Your task to perform on an android device: Open Chrome and go to the settings page Image 0: 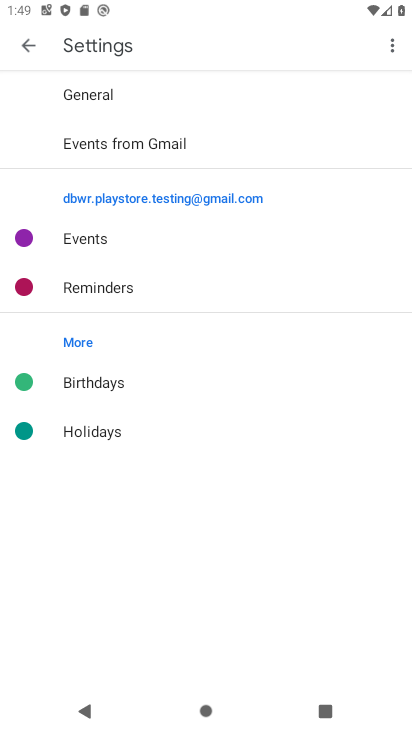
Step 0: press home button
Your task to perform on an android device: Open Chrome and go to the settings page Image 1: 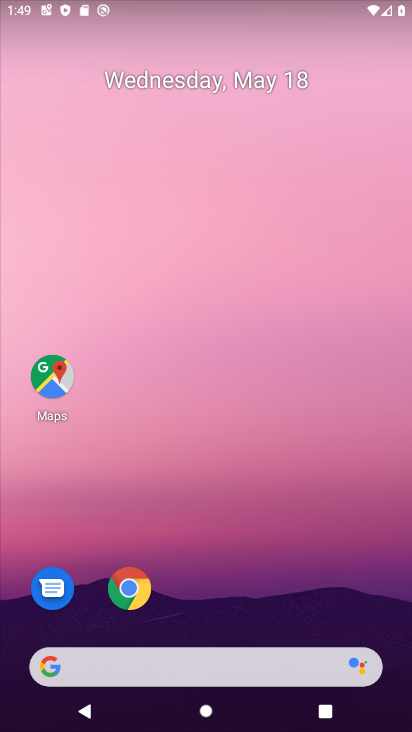
Step 1: drag from (332, 568) to (337, 109)
Your task to perform on an android device: Open Chrome and go to the settings page Image 2: 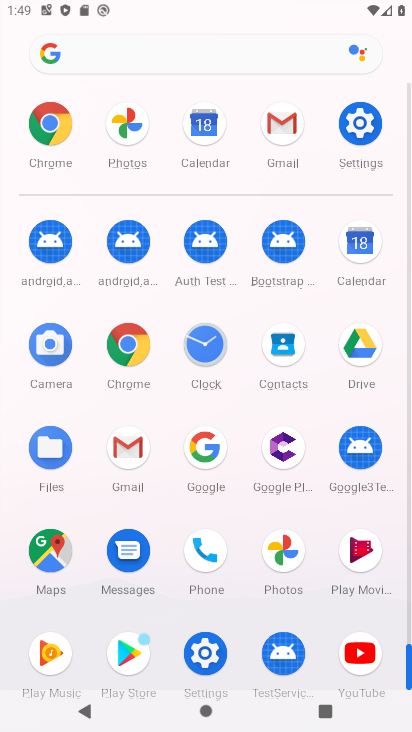
Step 2: click (132, 333)
Your task to perform on an android device: Open Chrome and go to the settings page Image 3: 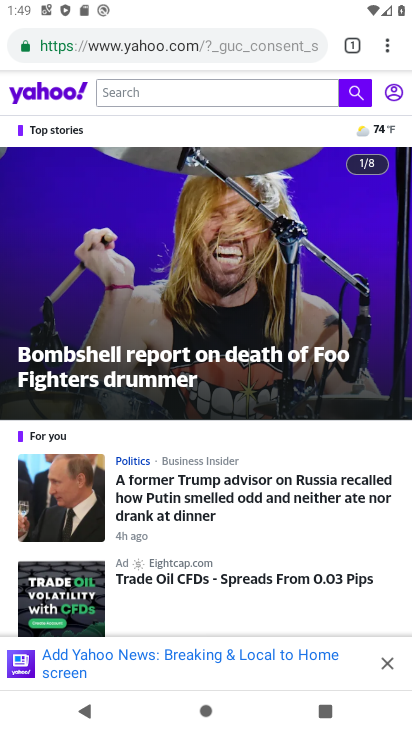
Step 3: click (388, 46)
Your task to perform on an android device: Open Chrome and go to the settings page Image 4: 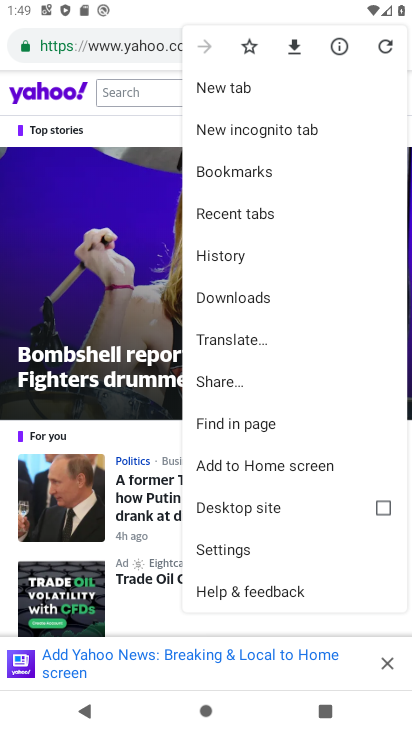
Step 4: click (257, 554)
Your task to perform on an android device: Open Chrome and go to the settings page Image 5: 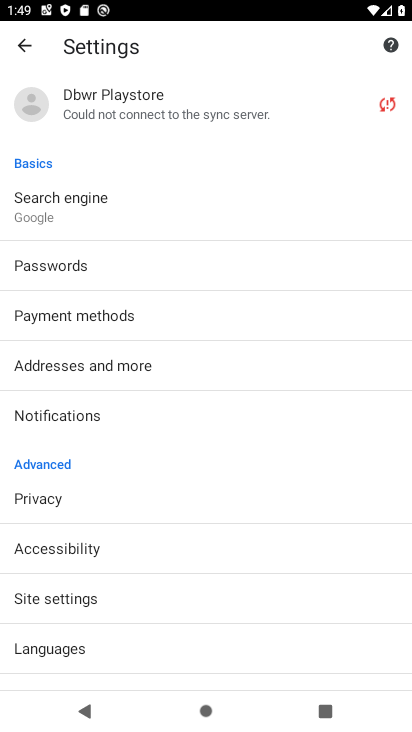
Step 5: task complete